Your task to perform on an android device: turn off smart reply in the gmail app Image 0: 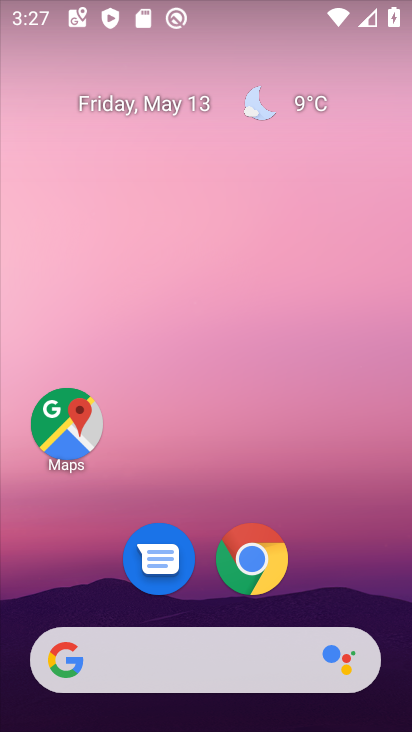
Step 0: drag from (391, 648) to (324, 78)
Your task to perform on an android device: turn off smart reply in the gmail app Image 1: 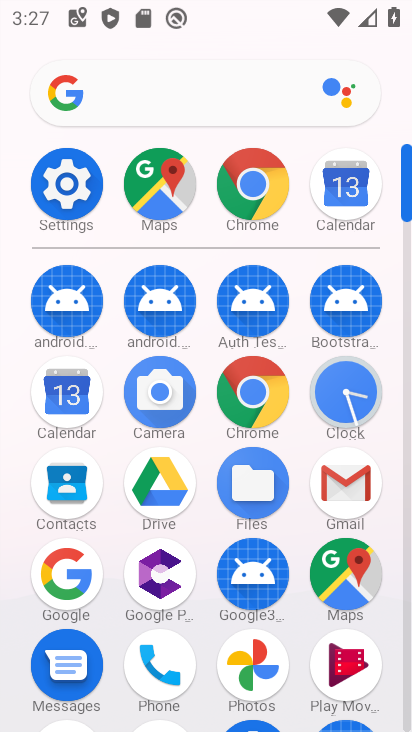
Step 1: click (408, 722)
Your task to perform on an android device: turn off smart reply in the gmail app Image 2: 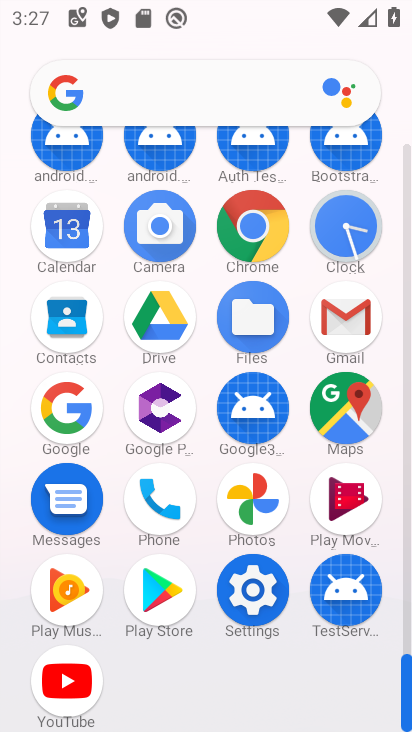
Step 2: click (346, 315)
Your task to perform on an android device: turn off smart reply in the gmail app Image 3: 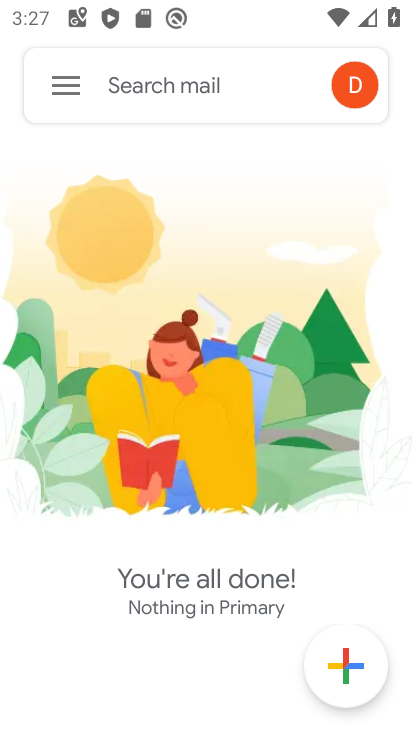
Step 3: click (62, 82)
Your task to perform on an android device: turn off smart reply in the gmail app Image 4: 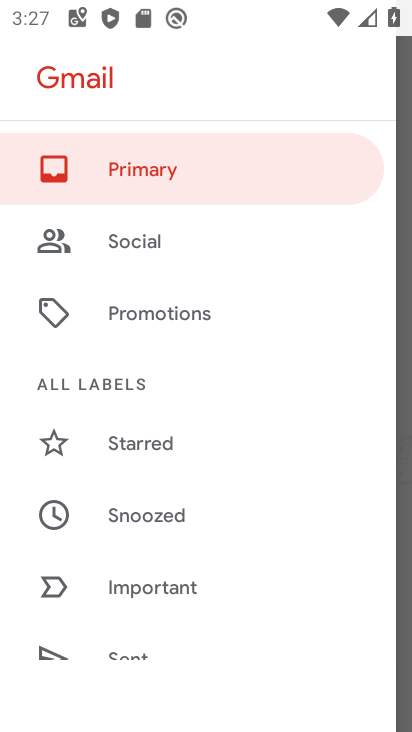
Step 4: drag from (227, 616) to (240, 18)
Your task to perform on an android device: turn off smart reply in the gmail app Image 5: 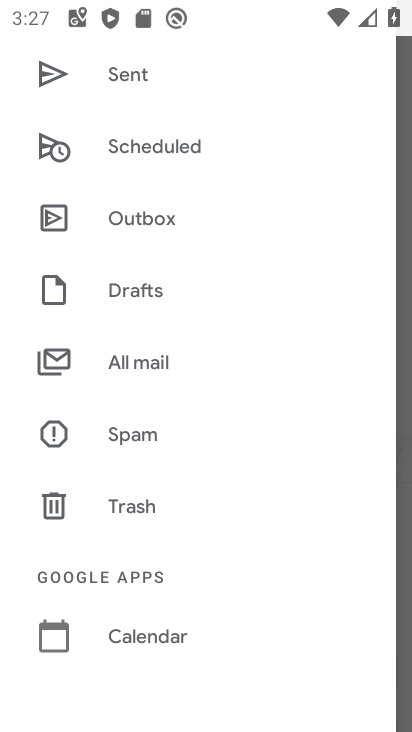
Step 5: drag from (227, 568) to (236, 166)
Your task to perform on an android device: turn off smart reply in the gmail app Image 6: 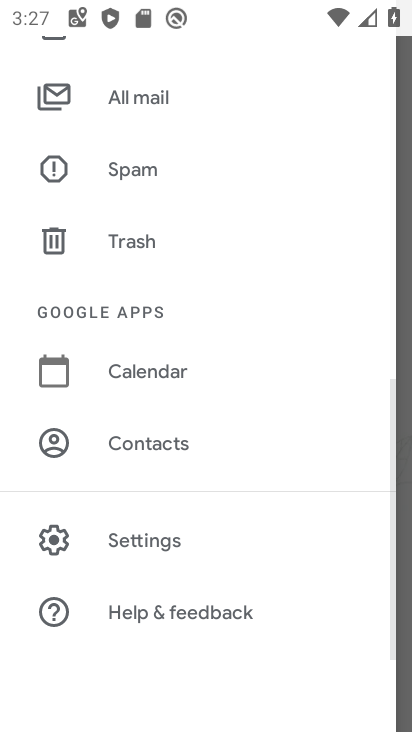
Step 6: click (144, 528)
Your task to perform on an android device: turn off smart reply in the gmail app Image 7: 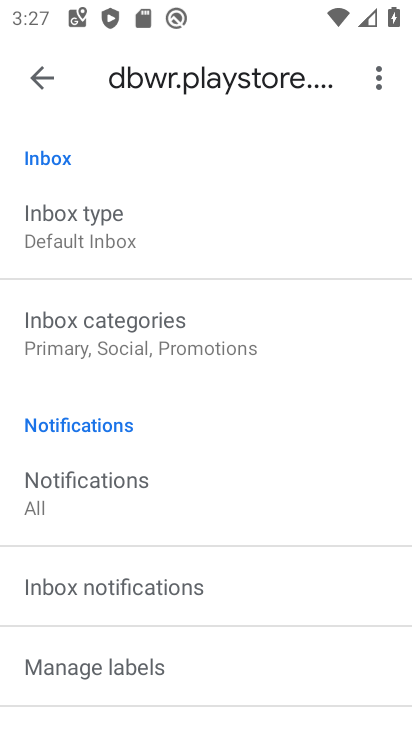
Step 7: task complete